Your task to perform on an android device: Show me productivity apps on the Play Store Image 0: 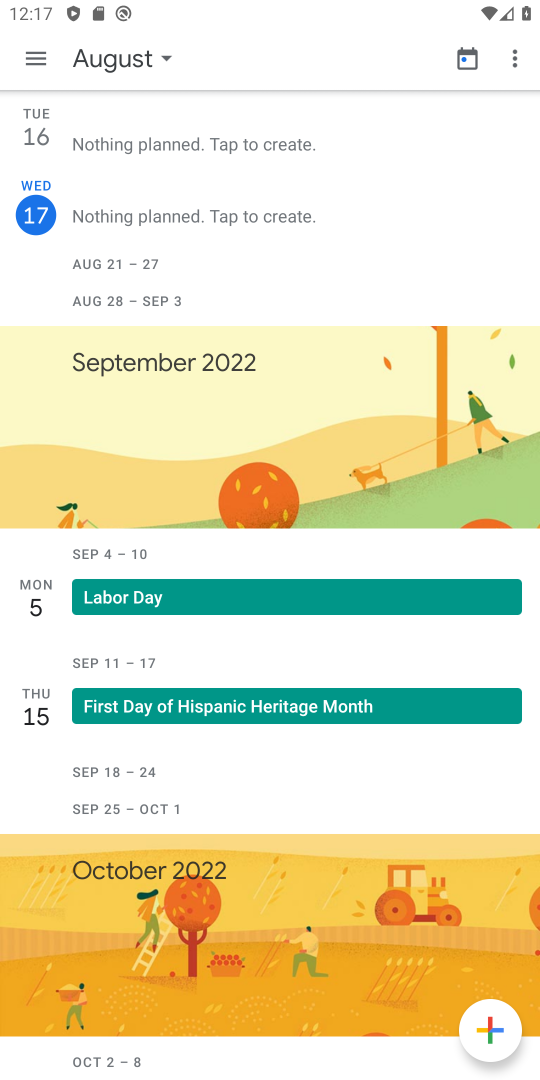
Step 0: press home button
Your task to perform on an android device: Show me productivity apps on the Play Store Image 1: 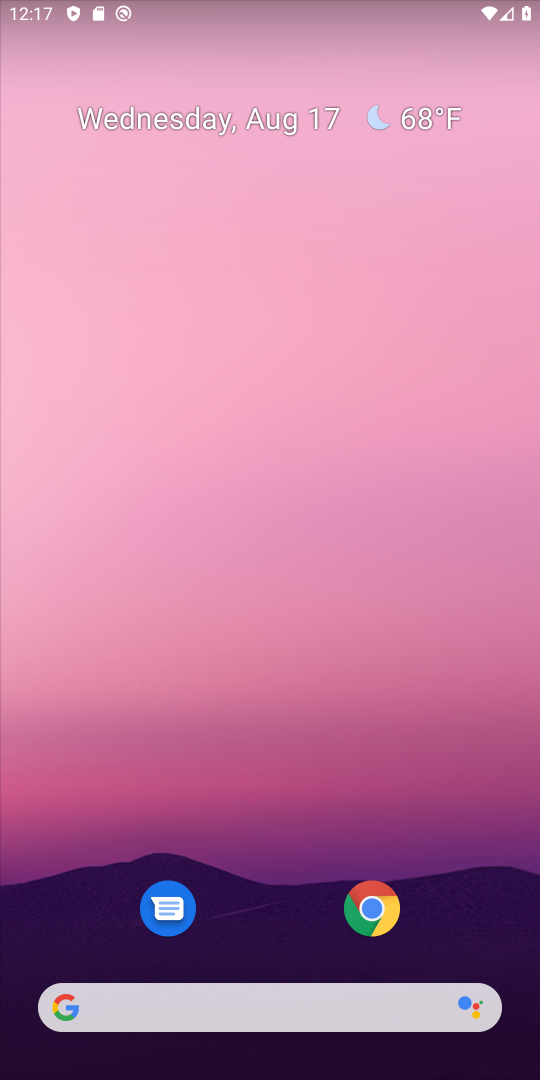
Step 1: drag from (261, 901) to (291, 272)
Your task to perform on an android device: Show me productivity apps on the Play Store Image 2: 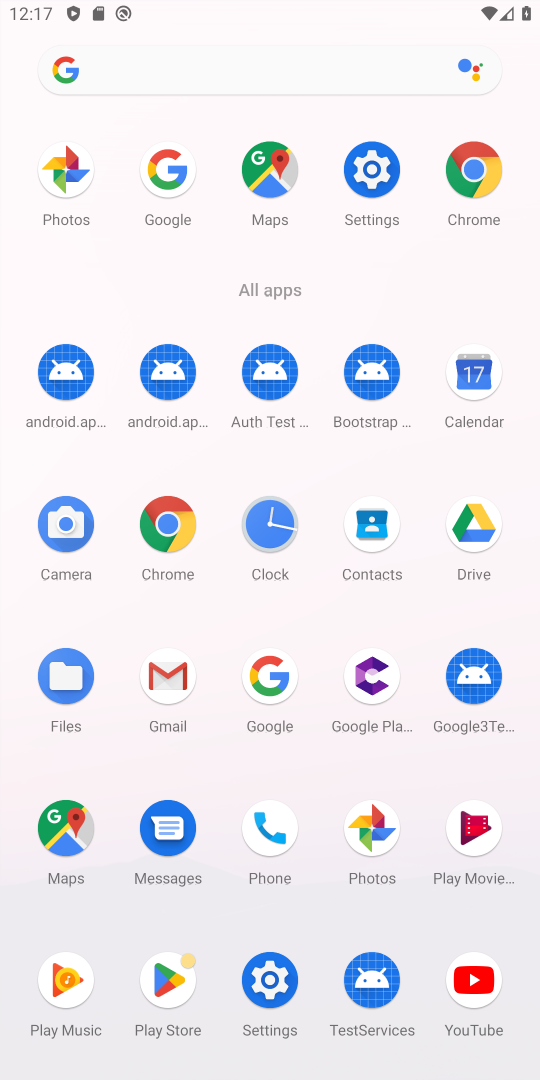
Step 2: click (163, 987)
Your task to perform on an android device: Show me productivity apps on the Play Store Image 3: 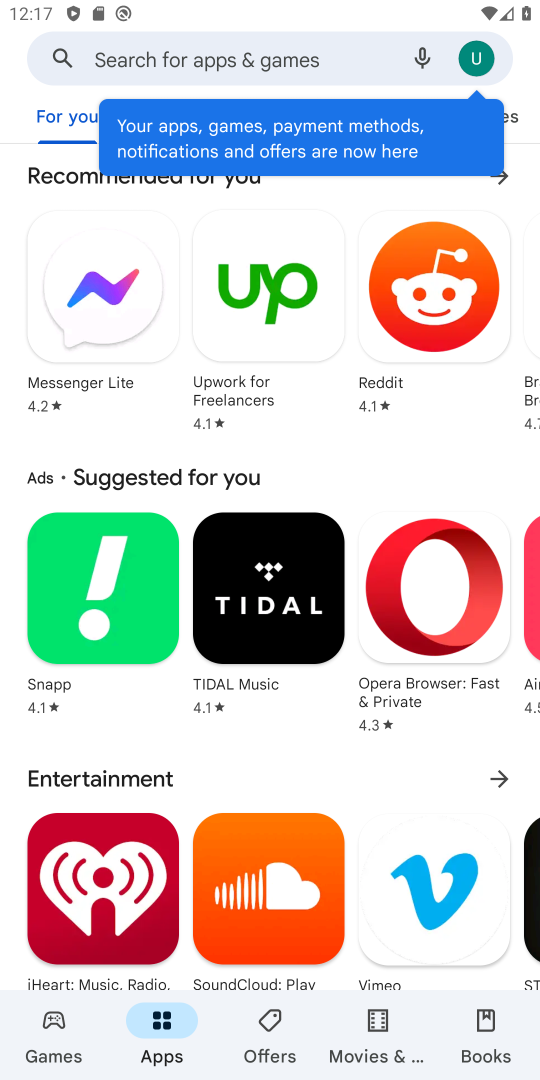
Step 3: click (314, 154)
Your task to perform on an android device: Show me productivity apps on the Play Store Image 4: 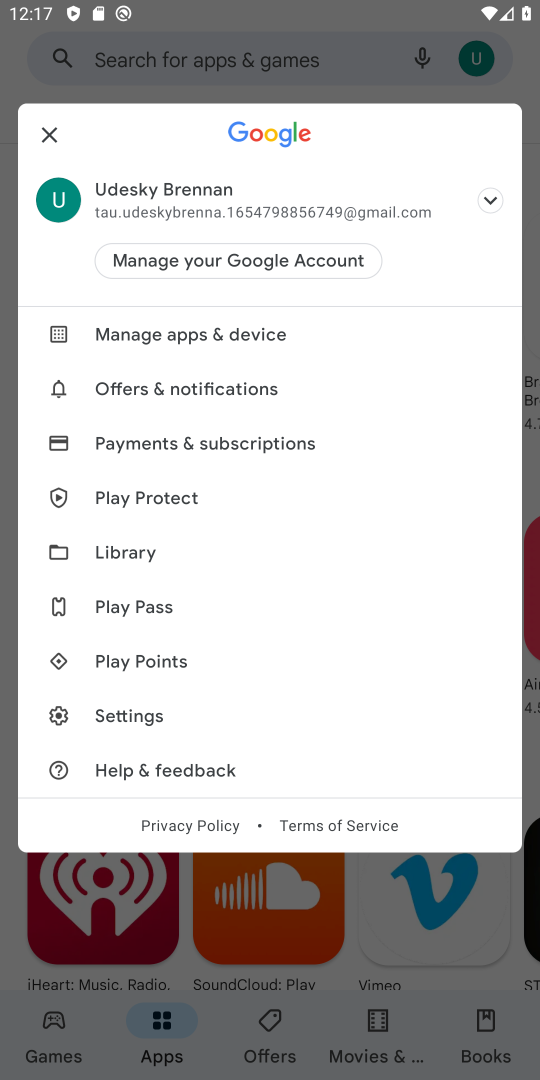
Step 4: click (484, 110)
Your task to perform on an android device: Show me productivity apps on the Play Store Image 5: 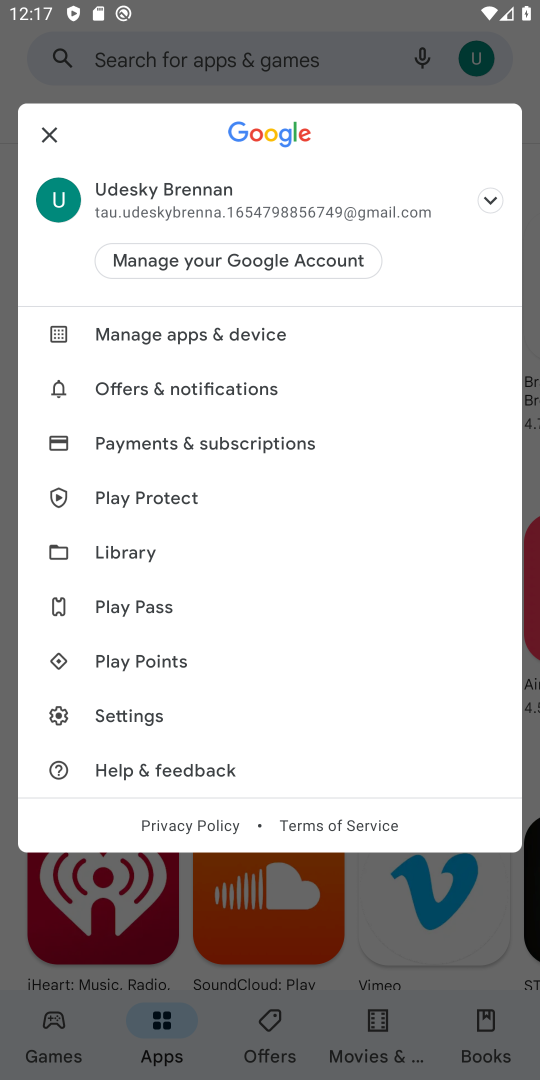
Step 5: click (144, 892)
Your task to perform on an android device: Show me productivity apps on the Play Store Image 6: 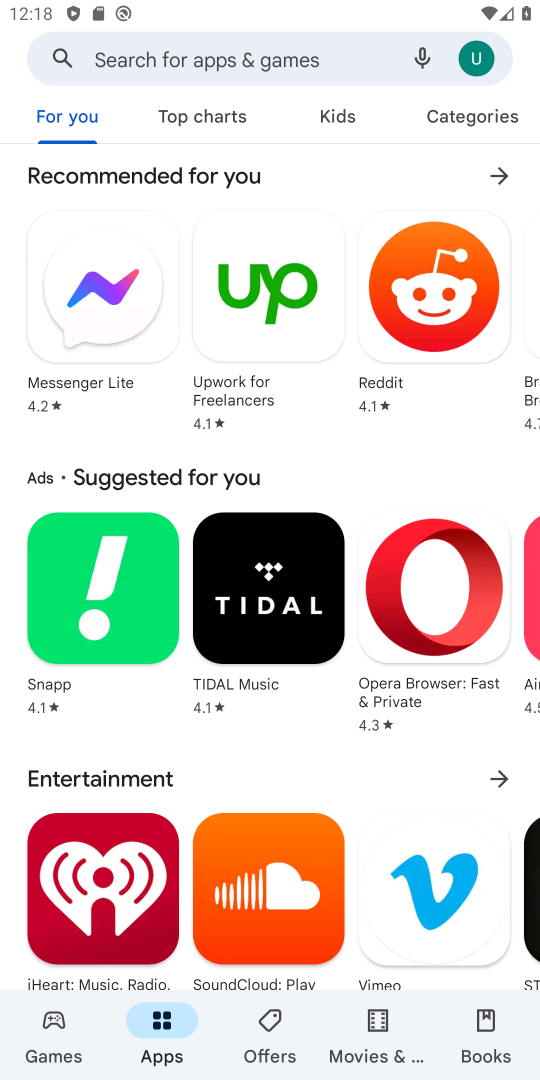
Step 6: click (450, 109)
Your task to perform on an android device: Show me productivity apps on the Play Store Image 7: 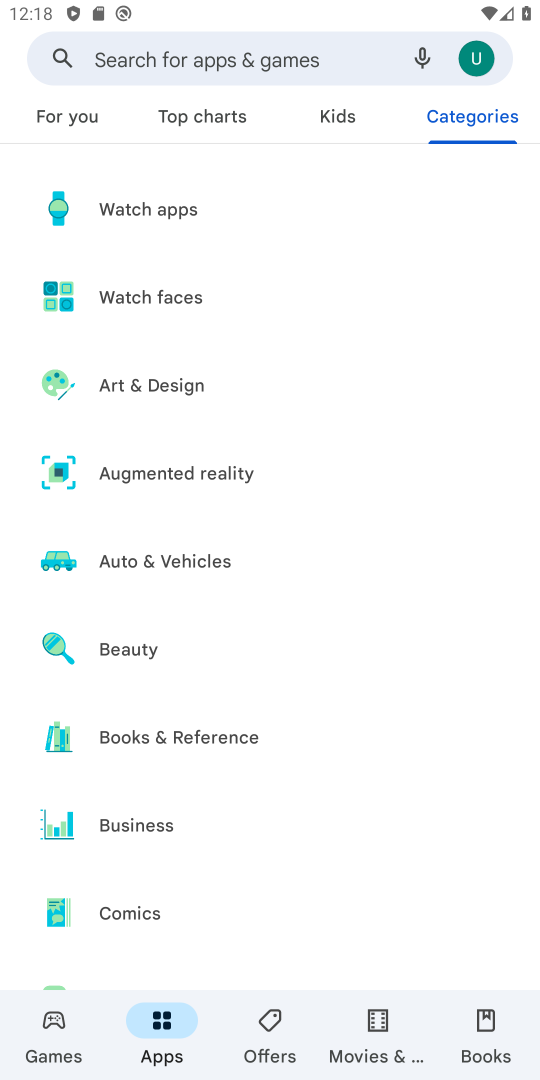
Step 7: drag from (241, 829) to (180, 243)
Your task to perform on an android device: Show me productivity apps on the Play Store Image 8: 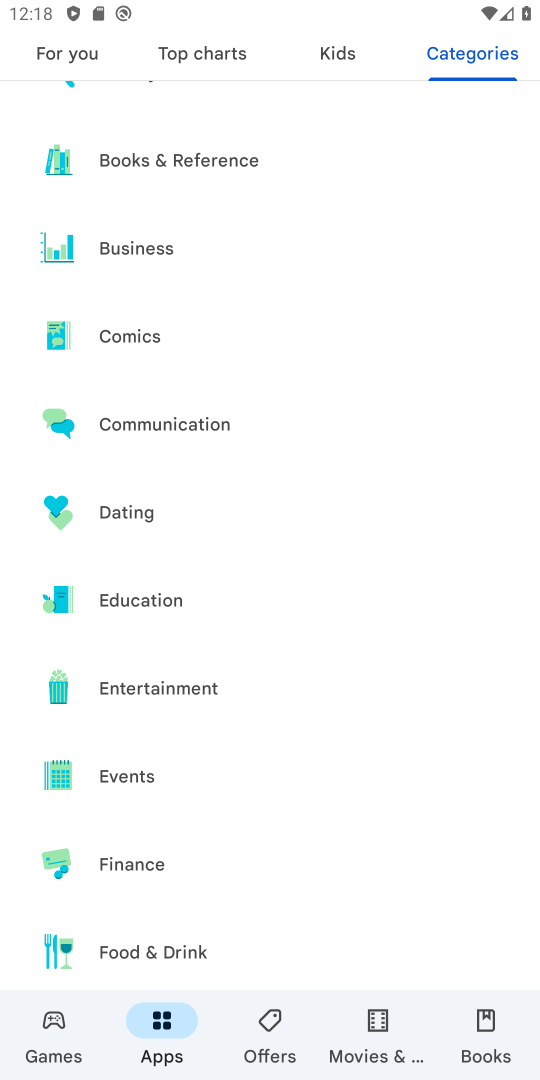
Step 8: drag from (219, 841) to (213, 233)
Your task to perform on an android device: Show me productivity apps on the Play Store Image 9: 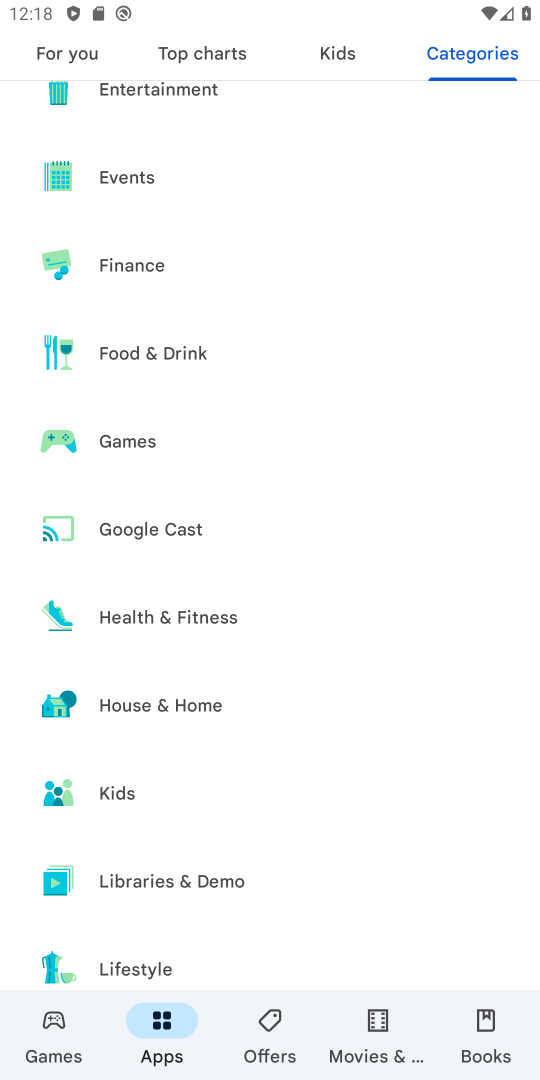
Step 9: drag from (222, 825) to (254, 226)
Your task to perform on an android device: Show me productivity apps on the Play Store Image 10: 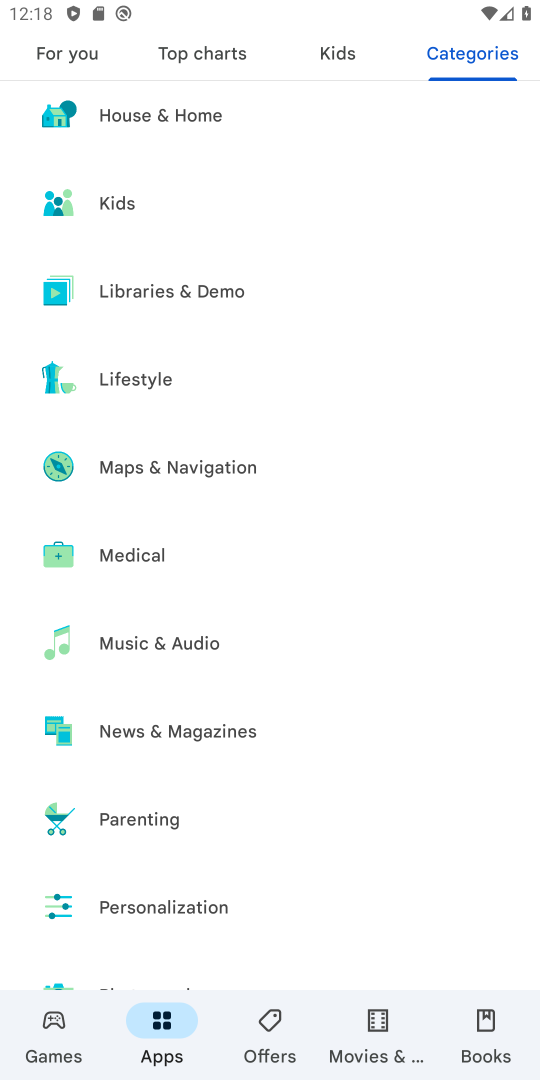
Step 10: drag from (248, 836) to (267, 405)
Your task to perform on an android device: Show me productivity apps on the Play Store Image 11: 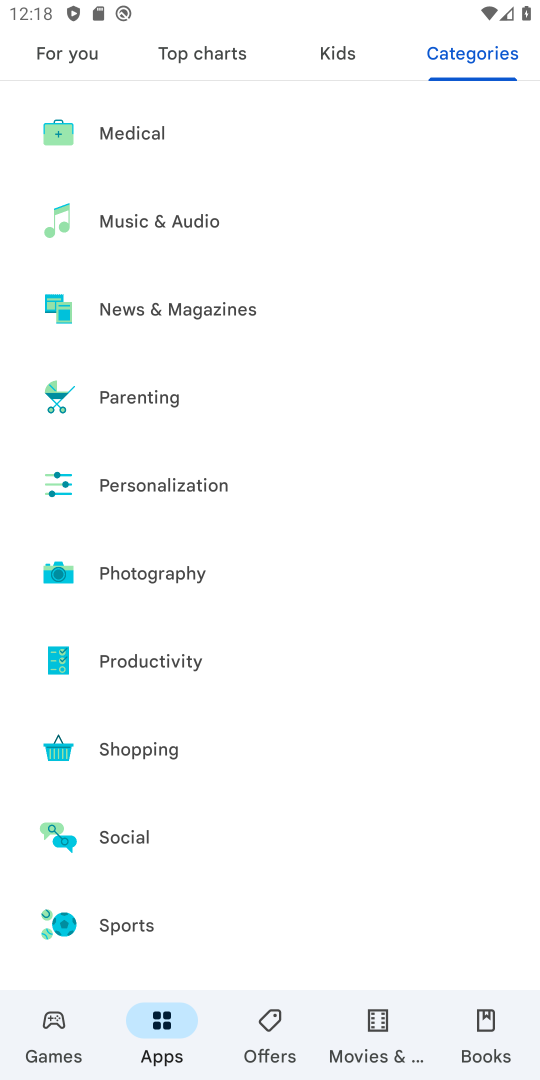
Step 11: click (166, 659)
Your task to perform on an android device: Show me productivity apps on the Play Store Image 12: 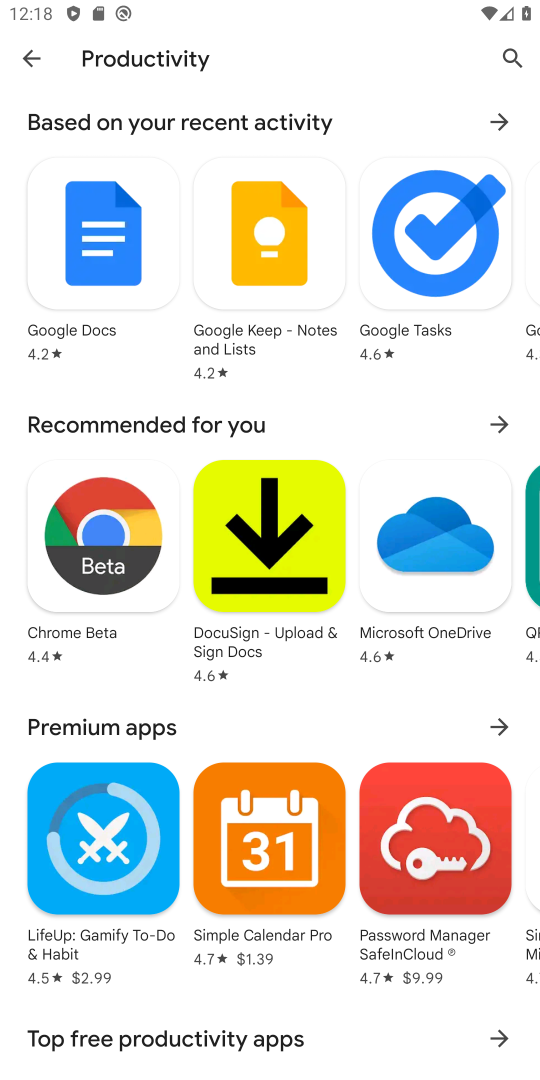
Step 12: task complete